Your task to perform on an android device: Go to Android settings Image 0: 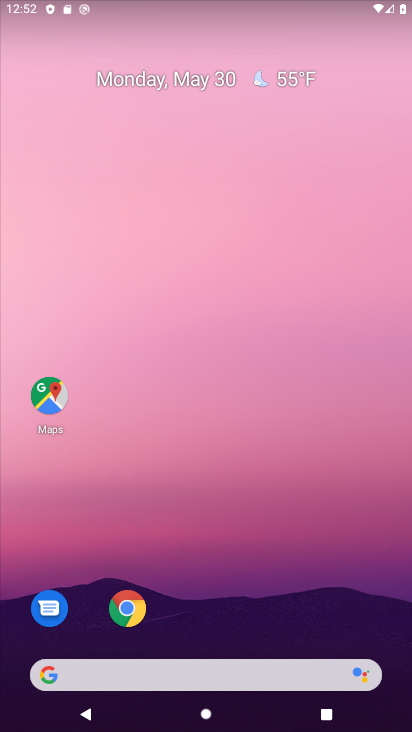
Step 0: drag from (215, 578) to (290, 98)
Your task to perform on an android device: Go to Android settings Image 1: 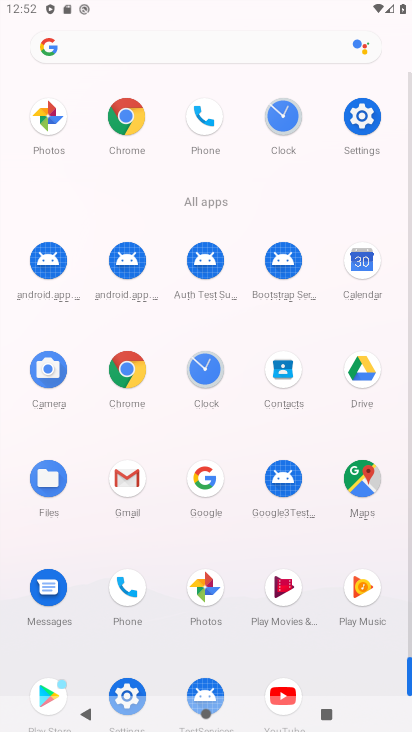
Step 1: drag from (292, 538) to (326, 324)
Your task to perform on an android device: Go to Android settings Image 2: 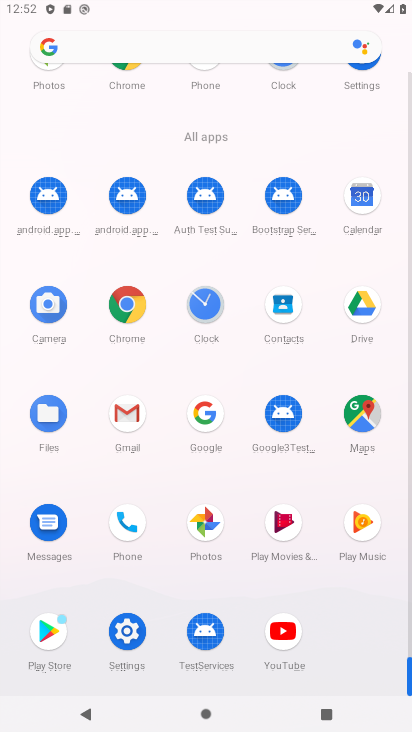
Step 2: click (127, 623)
Your task to perform on an android device: Go to Android settings Image 3: 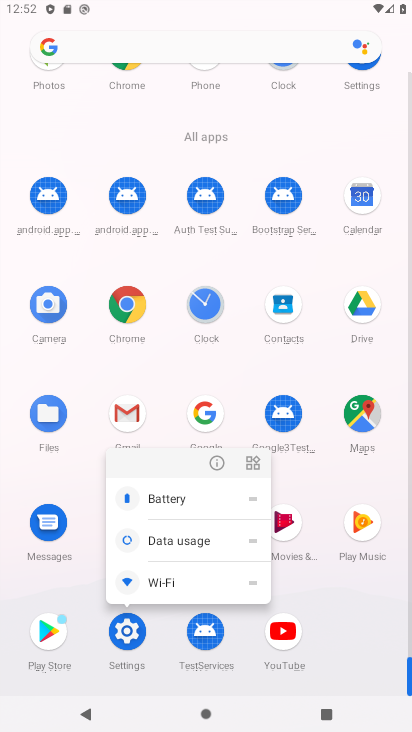
Step 3: click (140, 632)
Your task to perform on an android device: Go to Android settings Image 4: 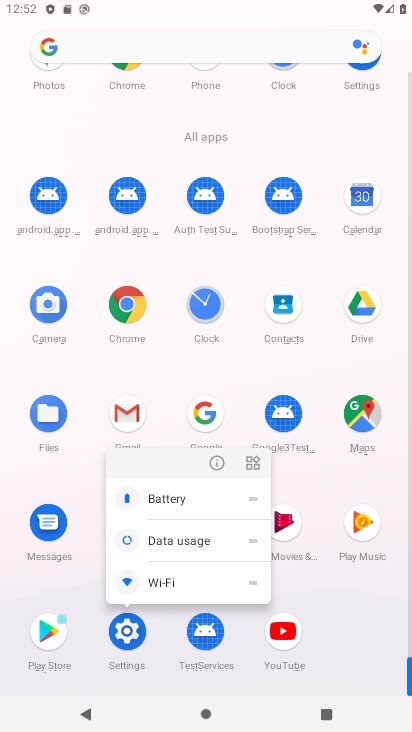
Step 4: click (140, 633)
Your task to perform on an android device: Go to Android settings Image 5: 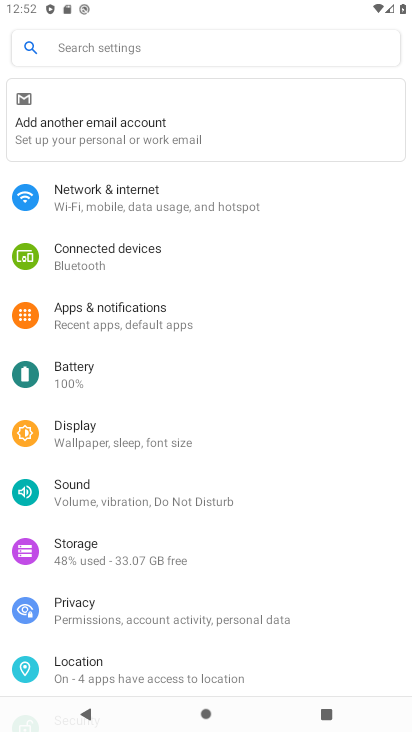
Step 5: task complete